Your task to perform on an android device: Do I have any events today? Image 0: 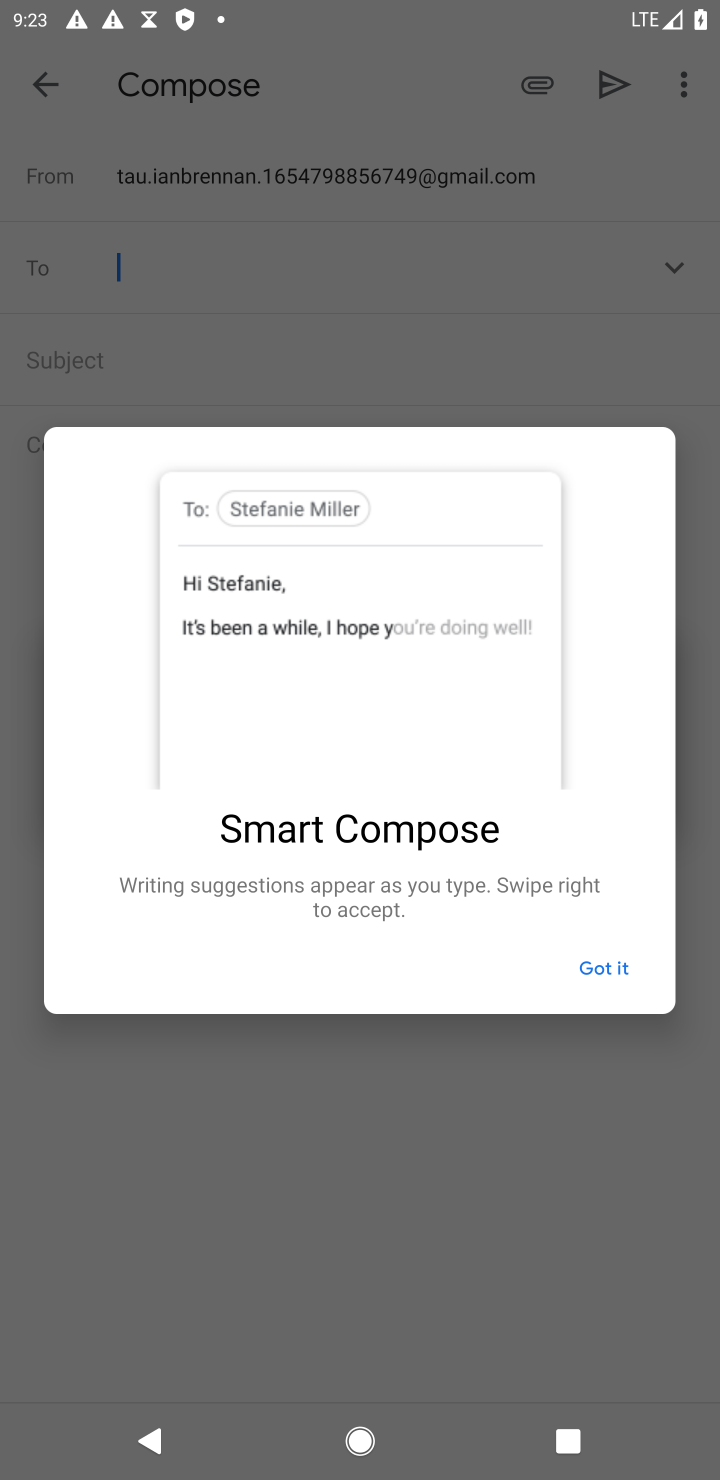
Step 0: press home button
Your task to perform on an android device: Do I have any events today? Image 1: 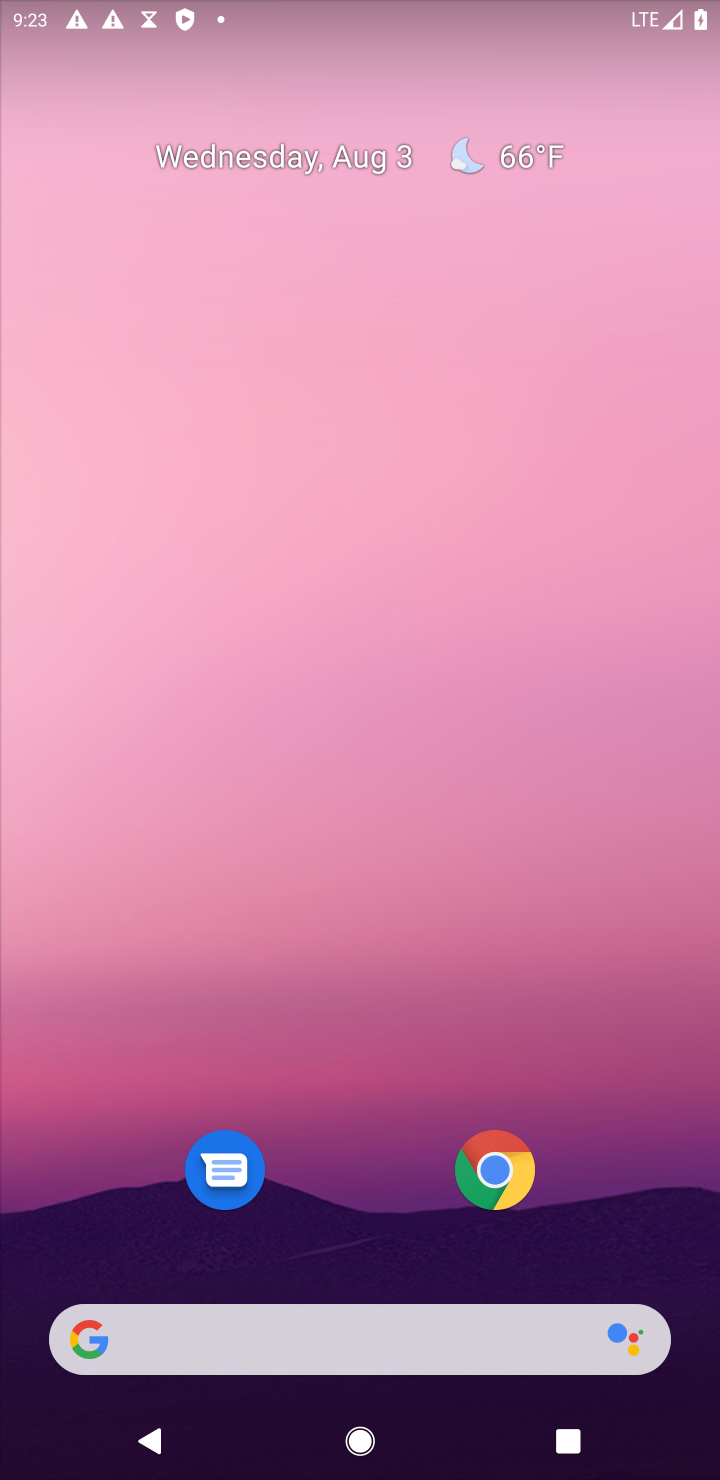
Step 1: drag from (662, 1222) to (513, 140)
Your task to perform on an android device: Do I have any events today? Image 2: 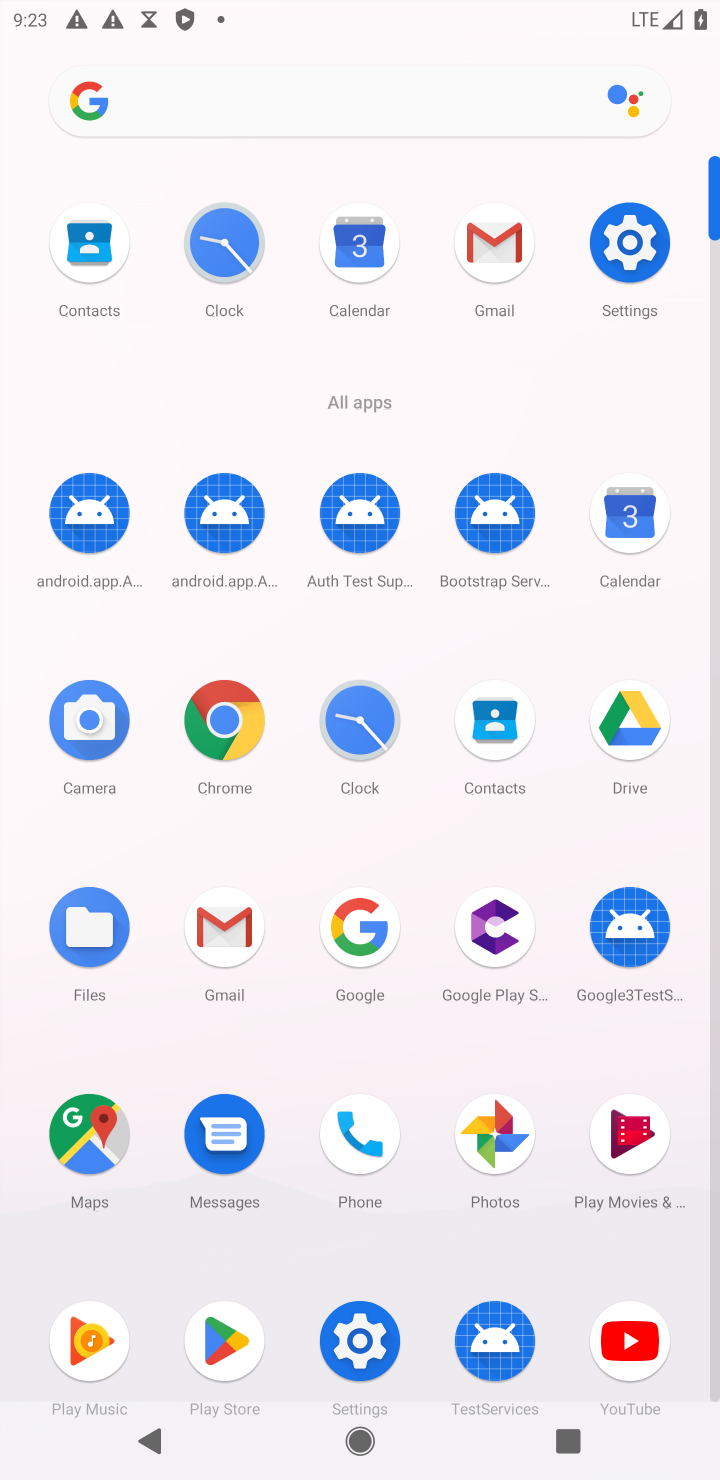
Step 2: click (630, 523)
Your task to perform on an android device: Do I have any events today? Image 3: 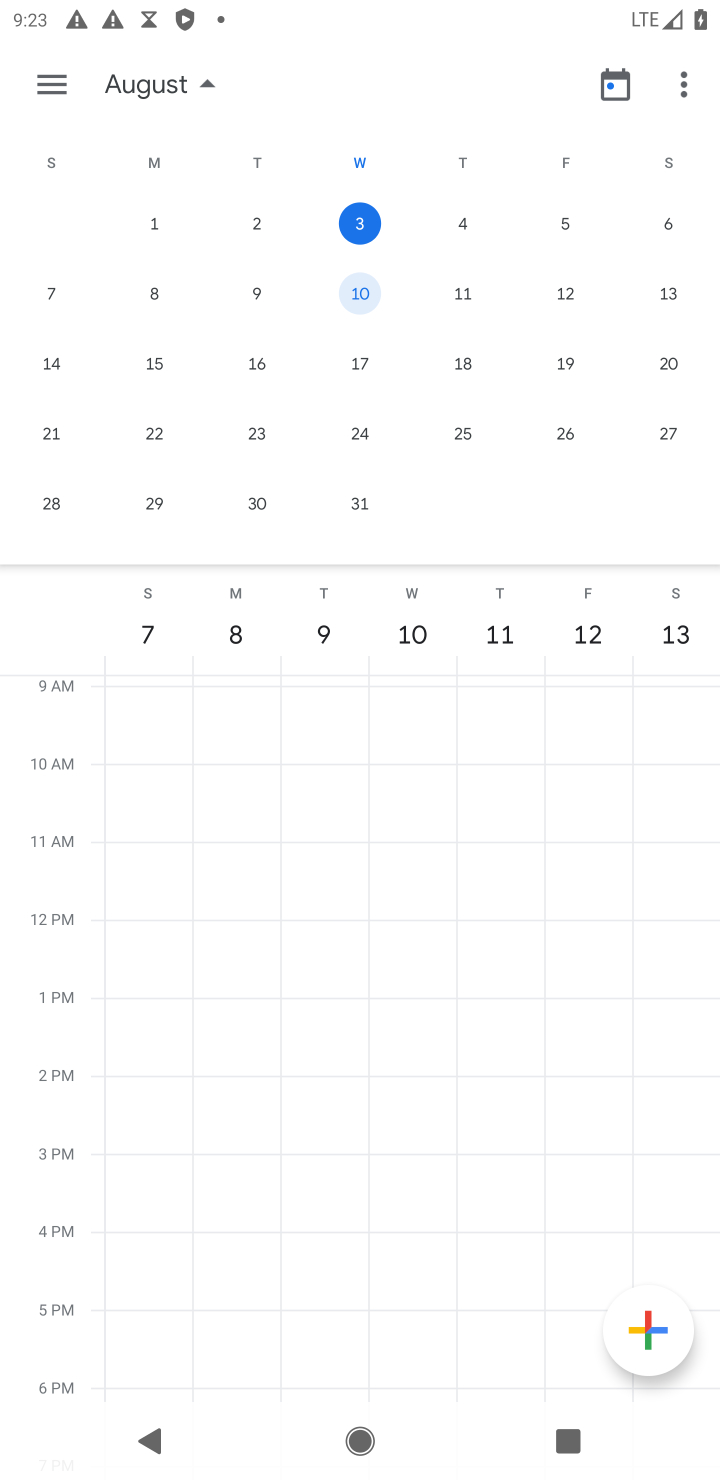
Step 3: click (469, 222)
Your task to perform on an android device: Do I have any events today? Image 4: 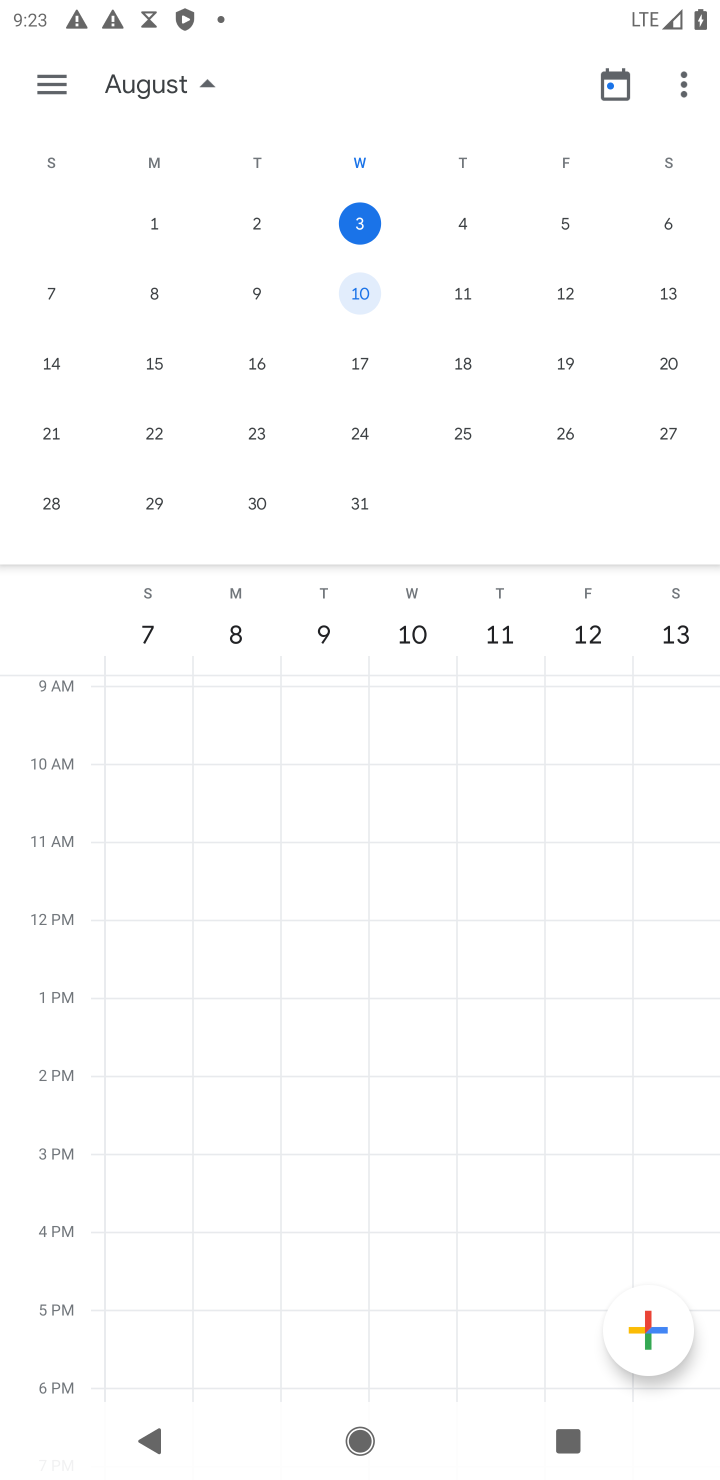
Step 4: click (48, 77)
Your task to perform on an android device: Do I have any events today? Image 5: 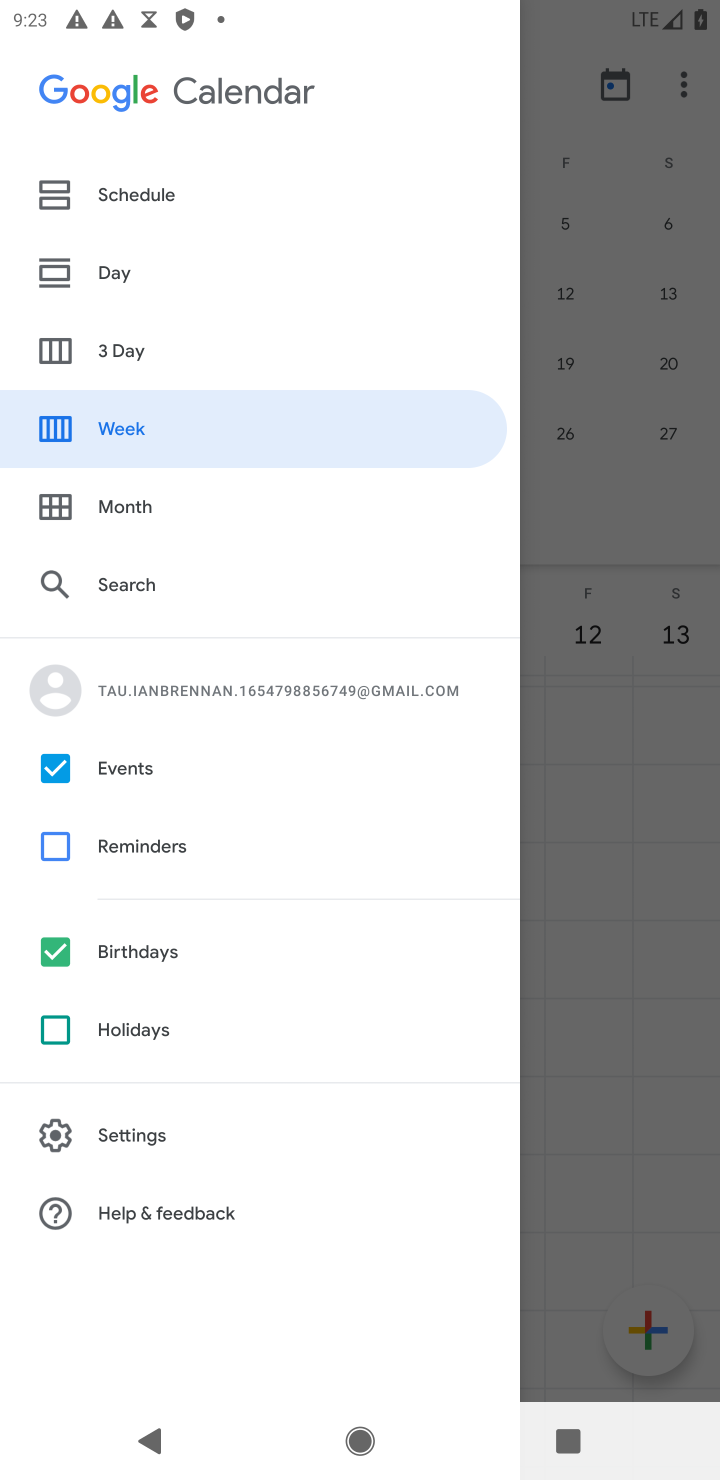
Step 5: click (119, 278)
Your task to perform on an android device: Do I have any events today? Image 6: 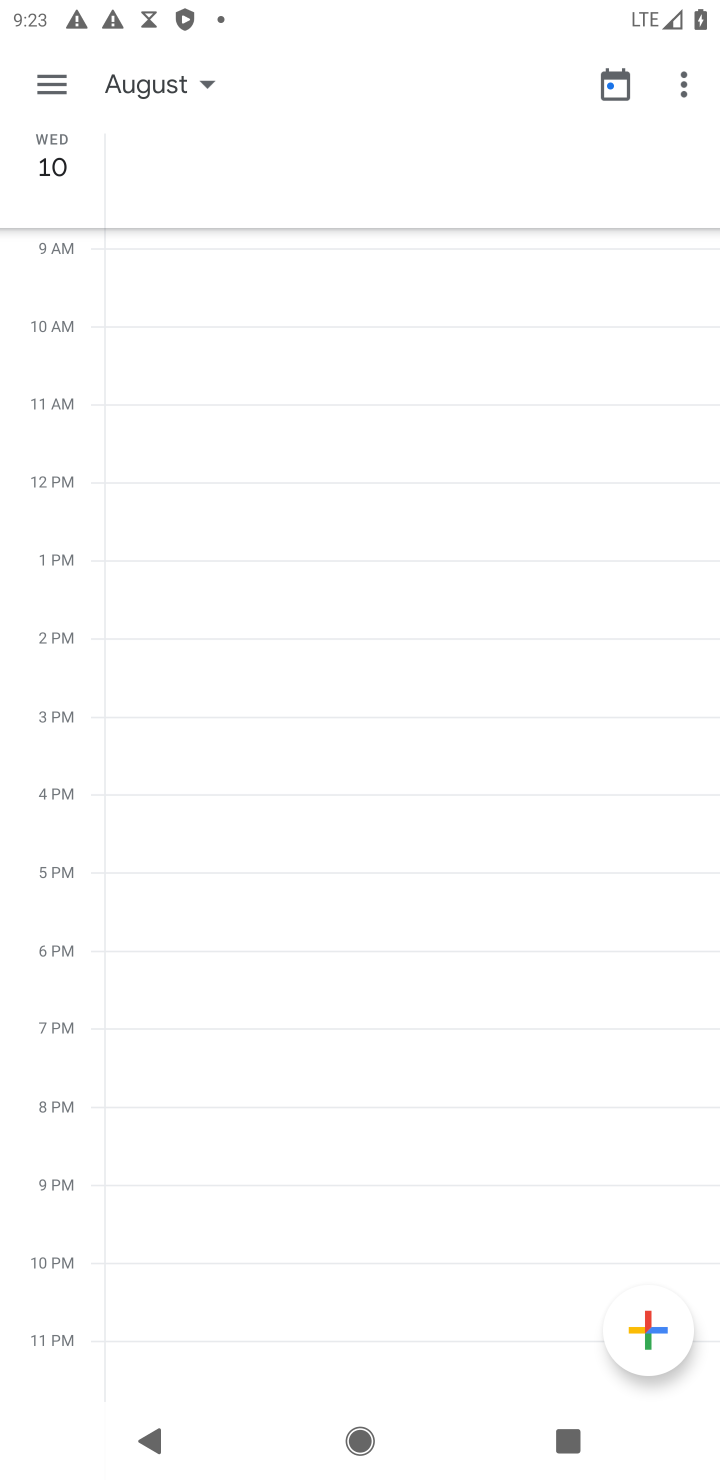
Step 6: click (186, 89)
Your task to perform on an android device: Do I have any events today? Image 7: 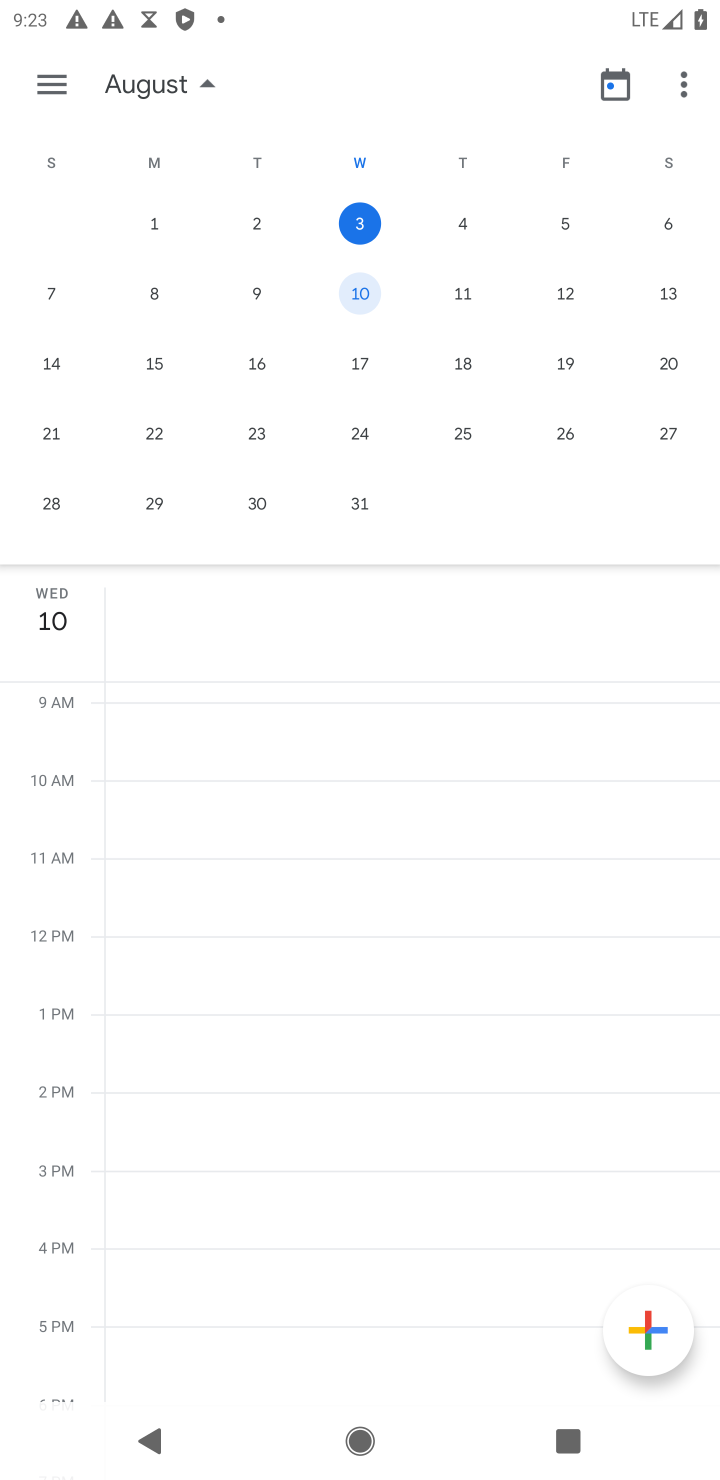
Step 7: click (473, 203)
Your task to perform on an android device: Do I have any events today? Image 8: 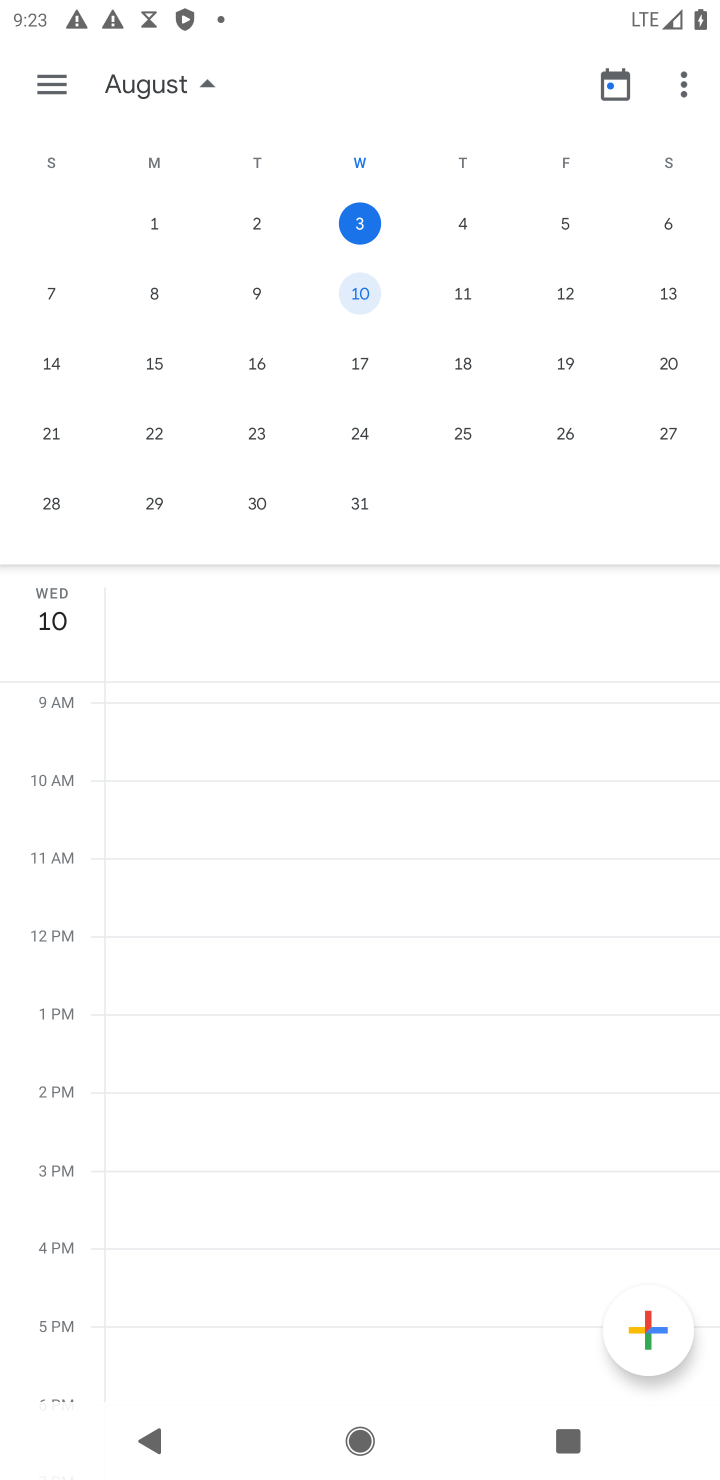
Step 8: click (459, 222)
Your task to perform on an android device: Do I have any events today? Image 9: 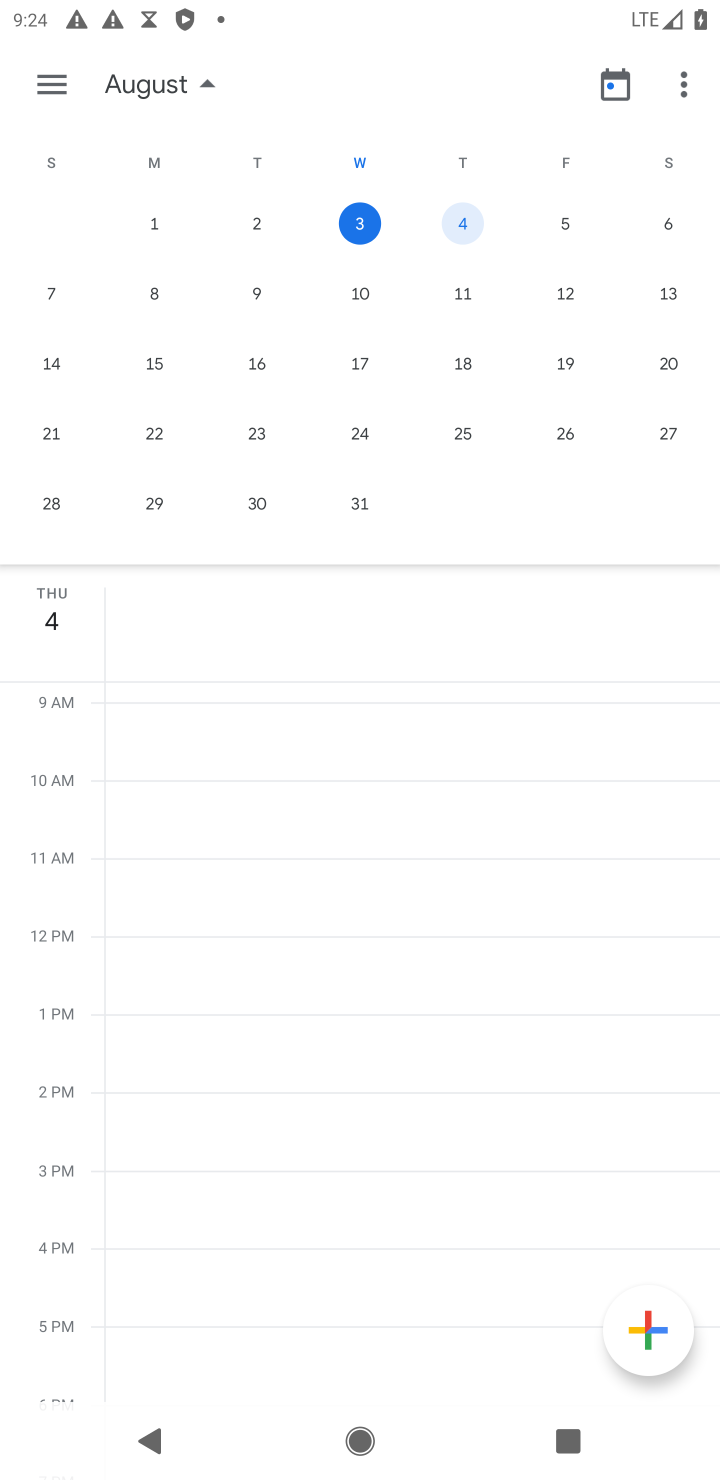
Step 9: click (459, 222)
Your task to perform on an android device: Do I have any events today? Image 10: 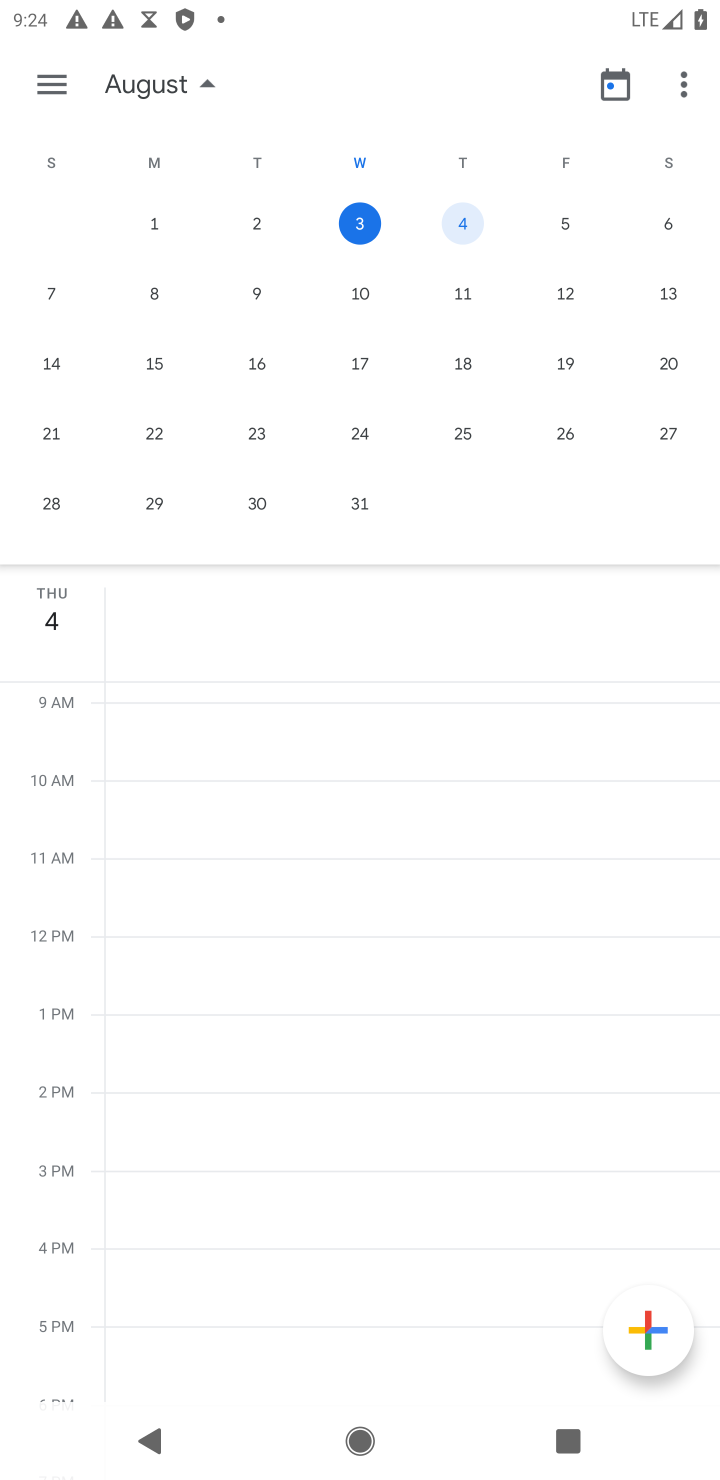
Step 10: task complete